Your task to perform on an android device: Search for Mexican restaurants on Maps Image 0: 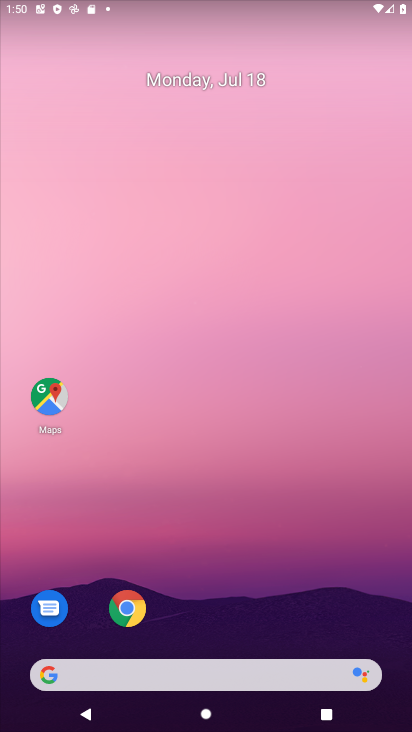
Step 0: drag from (371, 626) to (249, 108)
Your task to perform on an android device: Search for Mexican restaurants on Maps Image 1: 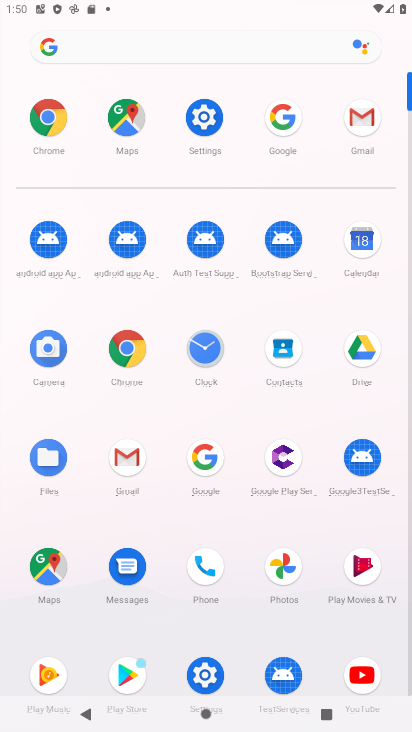
Step 1: click (48, 568)
Your task to perform on an android device: Search for Mexican restaurants on Maps Image 2: 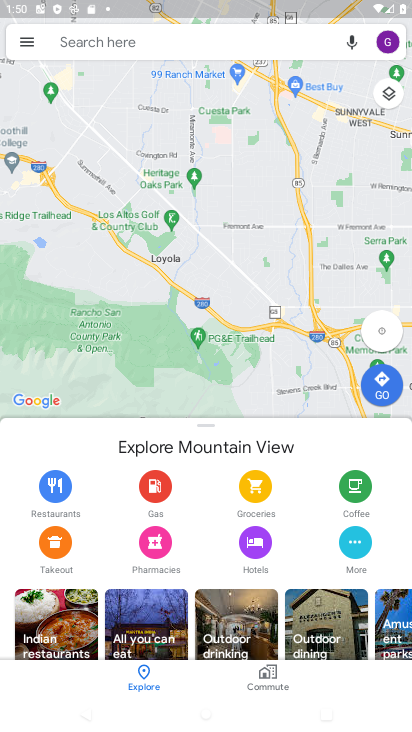
Step 2: click (104, 48)
Your task to perform on an android device: Search for Mexican restaurants on Maps Image 3: 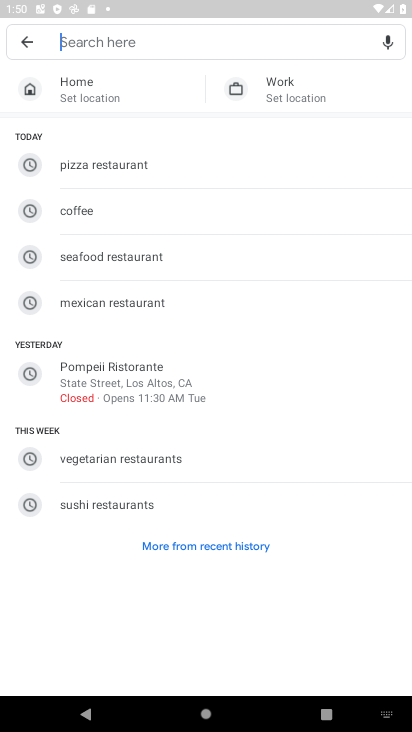
Step 3: click (118, 301)
Your task to perform on an android device: Search for Mexican restaurants on Maps Image 4: 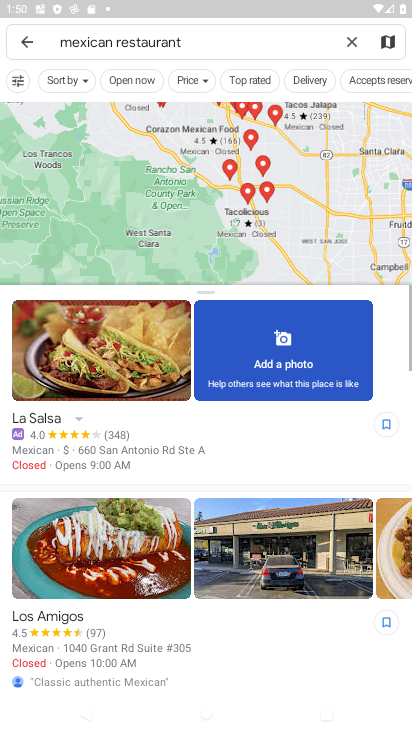
Step 4: task complete